Your task to perform on an android device: Is it going to rain today? Image 0: 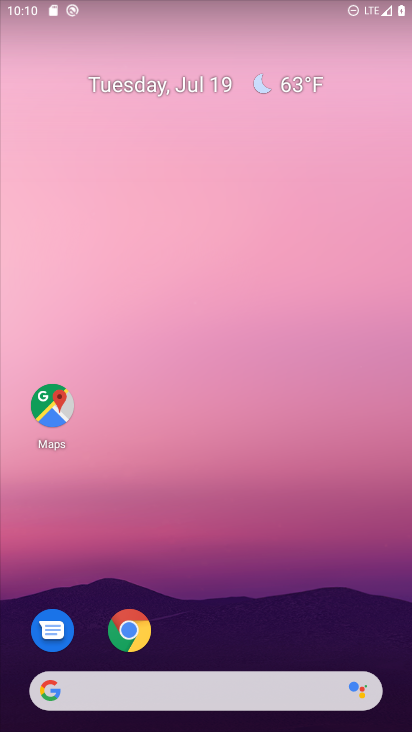
Step 0: drag from (201, 699) to (230, 197)
Your task to perform on an android device: Is it going to rain today? Image 1: 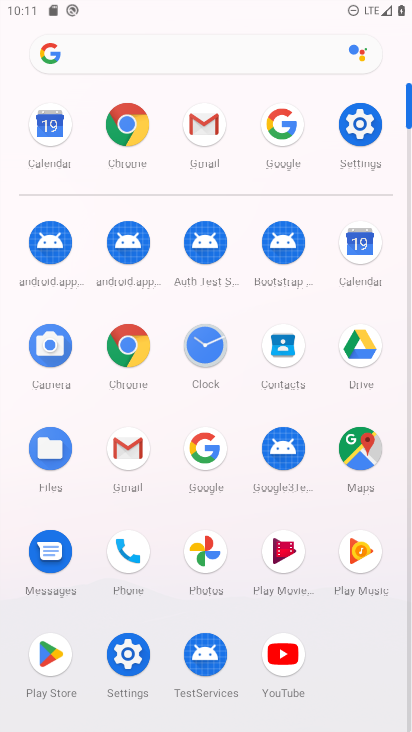
Step 1: click (278, 119)
Your task to perform on an android device: Is it going to rain today? Image 2: 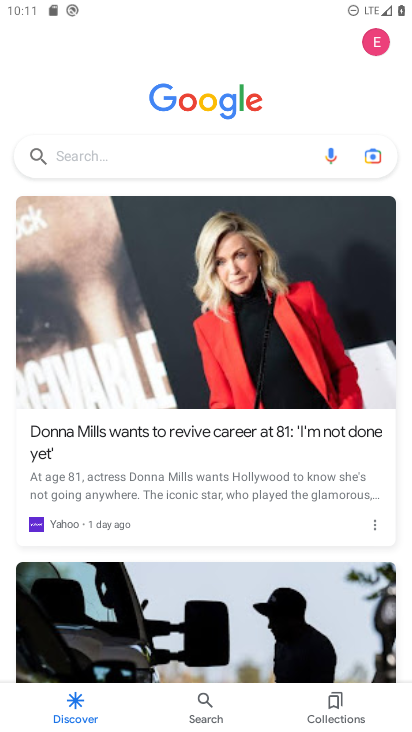
Step 2: click (211, 144)
Your task to perform on an android device: Is it going to rain today? Image 3: 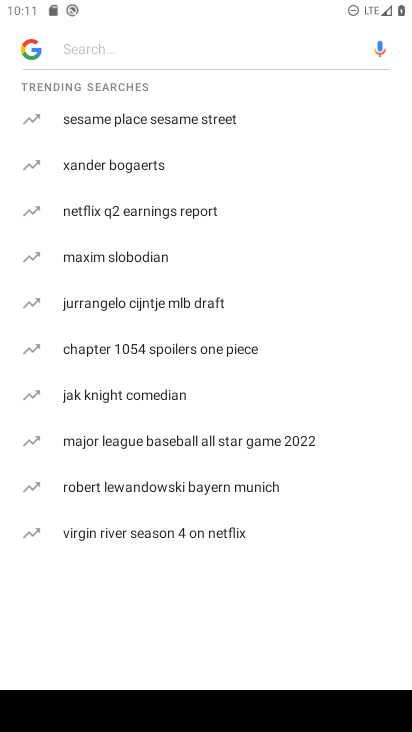
Step 3: type "Is it going to rain today?"
Your task to perform on an android device: Is it going to rain today? Image 4: 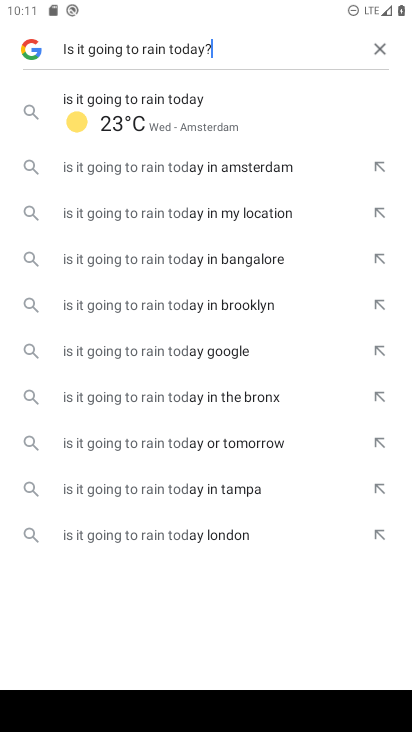
Step 4: type ""
Your task to perform on an android device: Is it going to rain today? Image 5: 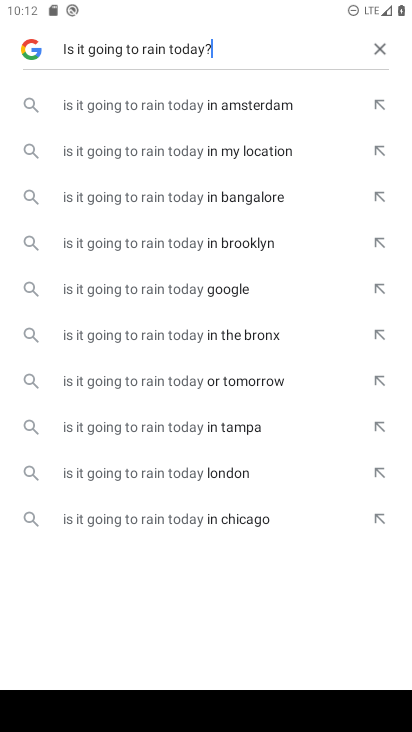
Step 5: click (136, 105)
Your task to perform on an android device: Is it going to rain today? Image 6: 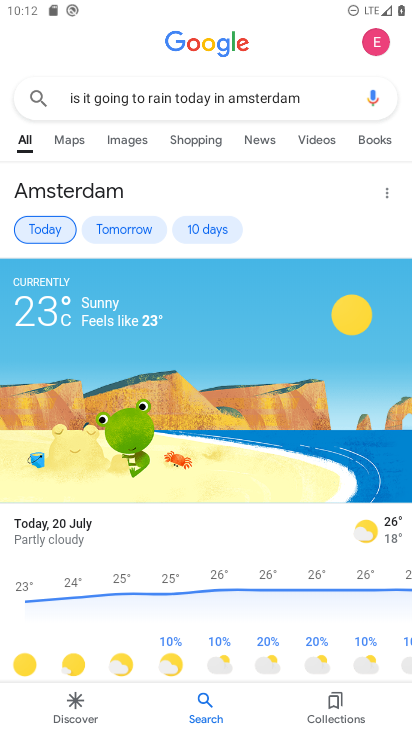
Step 6: task complete